Your task to perform on an android device: Go to Reddit.com Image 0: 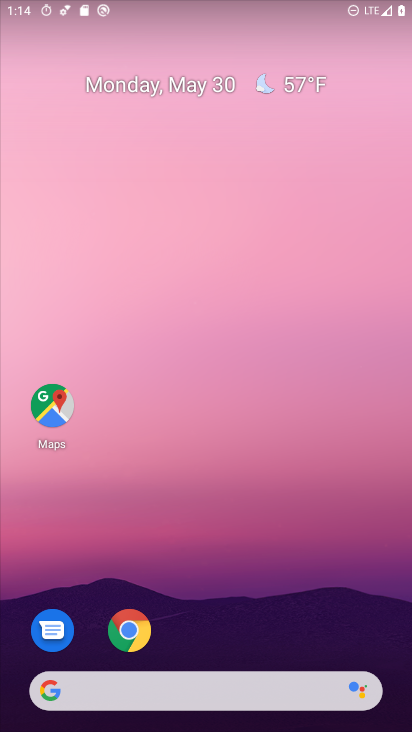
Step 0: drag from (326, 724) to (223, 135)
Your task to perform on an android device: Go to Reddit.com Image 1: 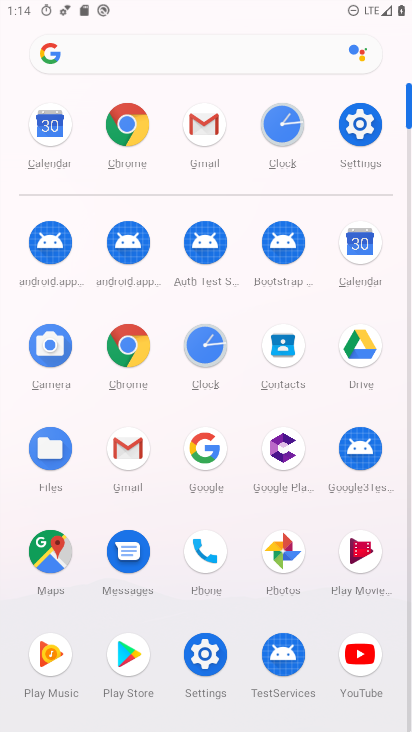
Step 1: click (145, 130)
Your task to perform on an android device: Go to Reddit.com Image 2: 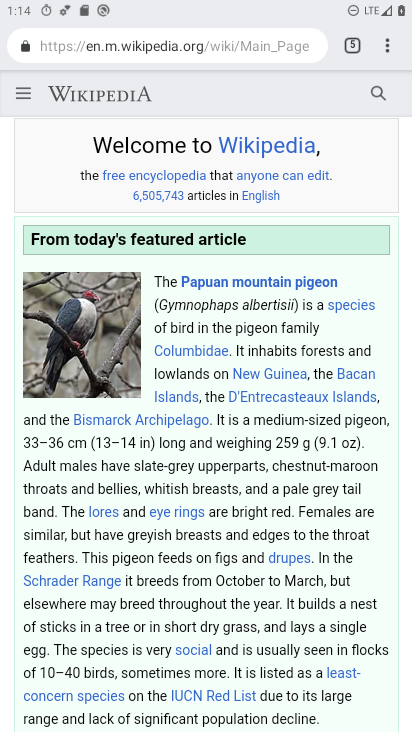
Step 2: click (150, 40)
Your task to perform on an android device: Go to Reddit.com Image 3: 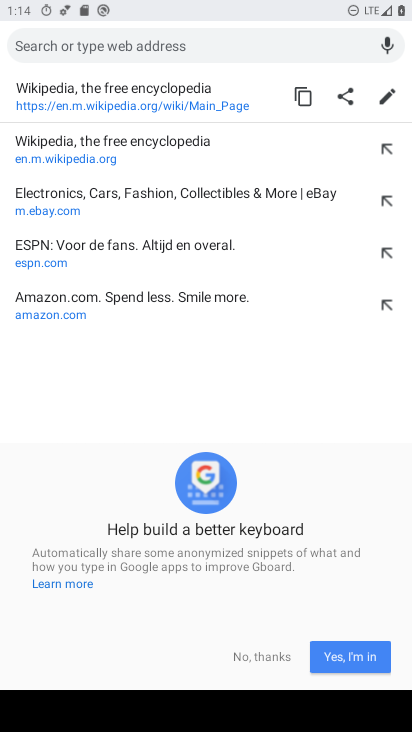
Step 3: click (257, 652)
Your task to perform on an android device: Go to Reddit.com Image 4: 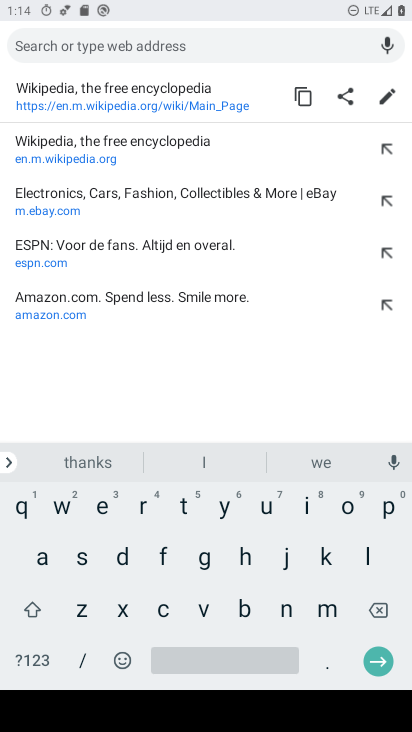
Step 4: click (144, 505)
Your task to perform on an android device: Go to Reddit.com Image 5: 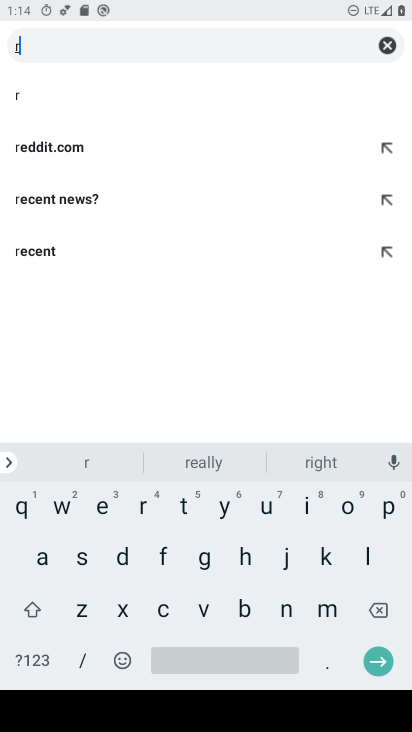
Step 5: click (103, 511)
Your task to perform on an android device: Go to Reddit.com Image 6: 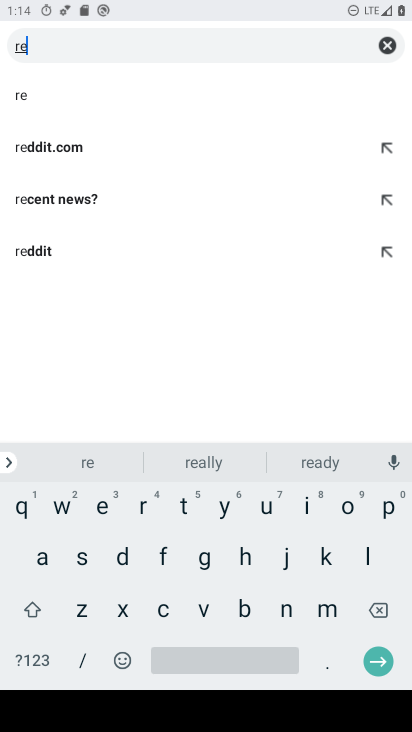
Step 6: click (85, 148)
Your task to perform on an android device: Go to Reddit.com Image 7: 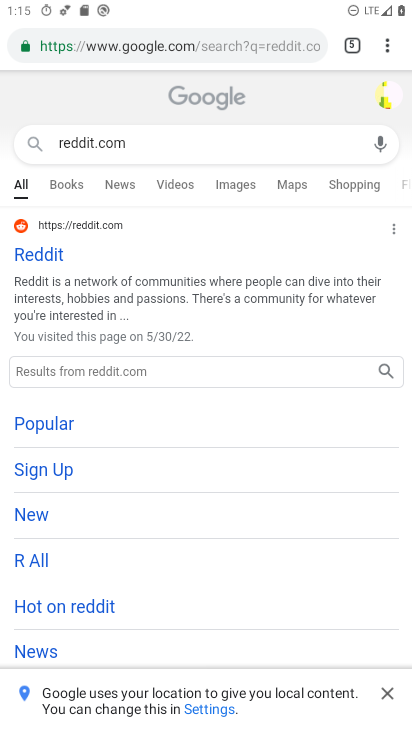
Step 7: click (47, 249)
Your task to perform on an android device: Go to Reddit.com Image 8: 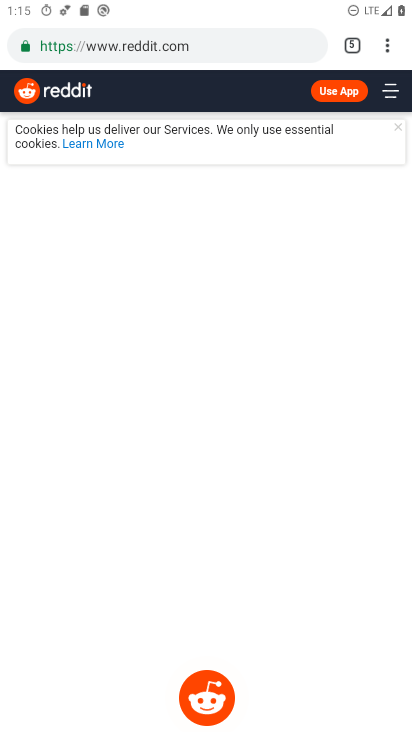
Step 8: task complete